Your task to perform on an android device: Go to Google Image 0: 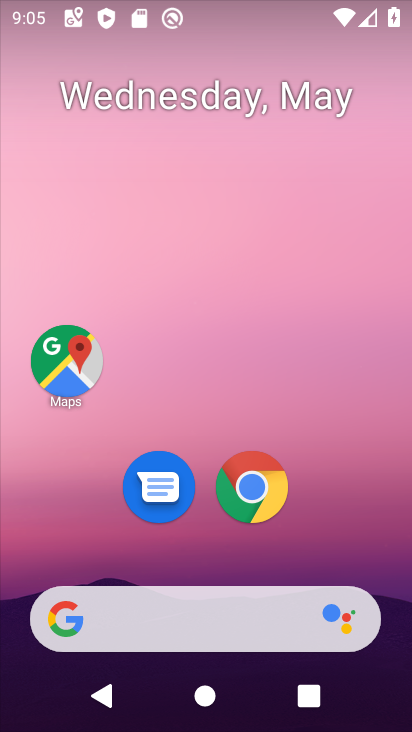
Step 0: drag from (340, 532) to (270, 350)
Your task to perform on an android device: Go to Google Image 1: 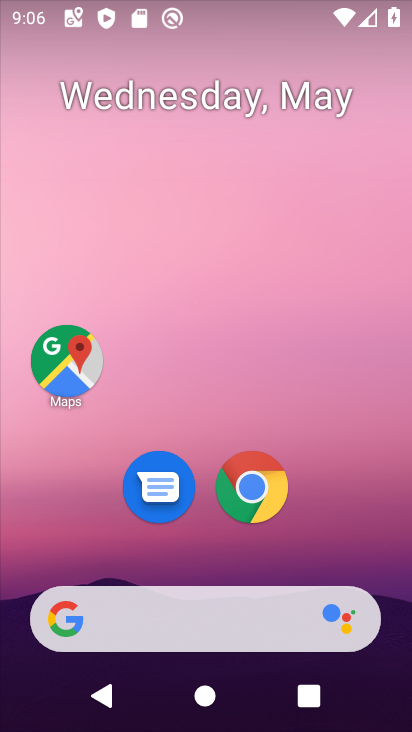
Step 1: click (68, 609)
Your task to perform on an android device: Go to Google Image 2: 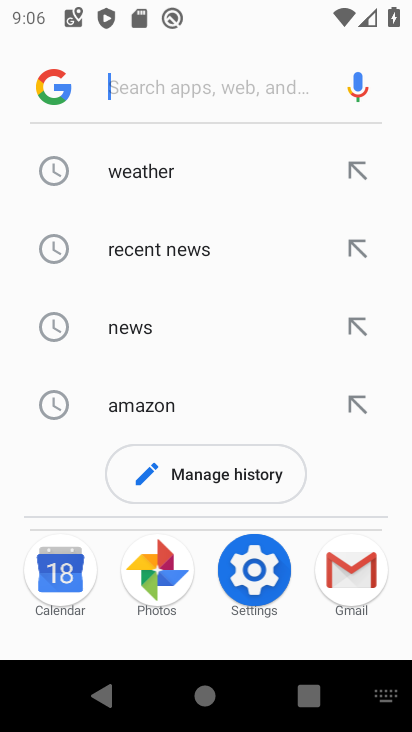
Step 2: task complete